Your task to perform on an android device: set the stopwatch Image 0: 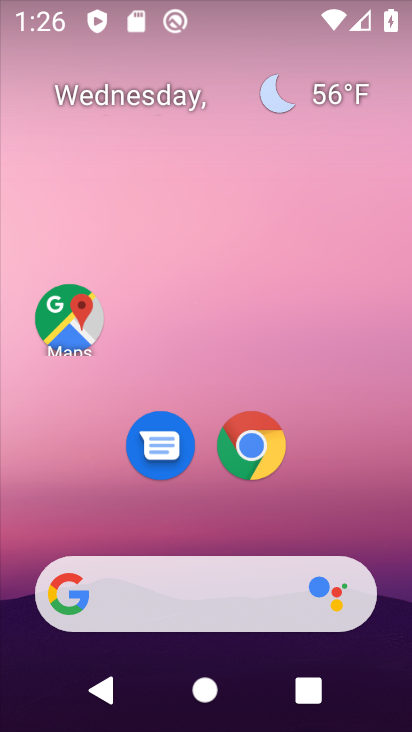
Step 0: drag from (194, 535) to (354, 48)
Your task to perform on an android device: set the stopwatch Image 1: 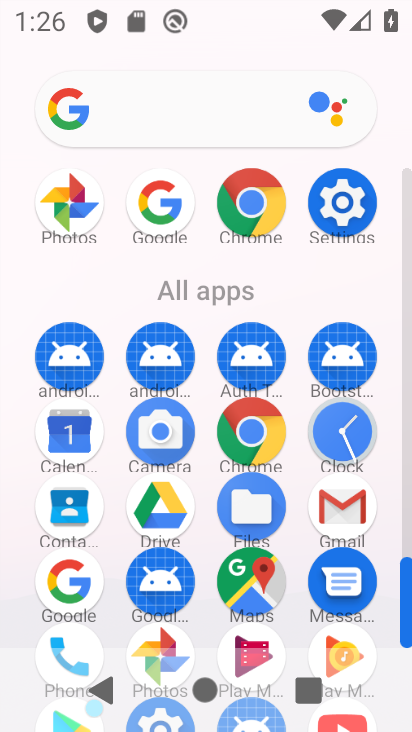
Step 1: click (338, 429)
Your task to perform on an android device: set the stopwatch Image 2: 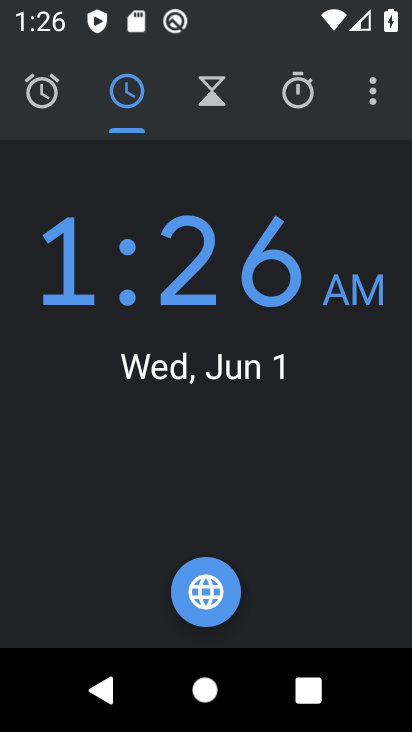
Step 2: click (320, 89)
Your task to perform on an android device: set the stopwatch Image 3: 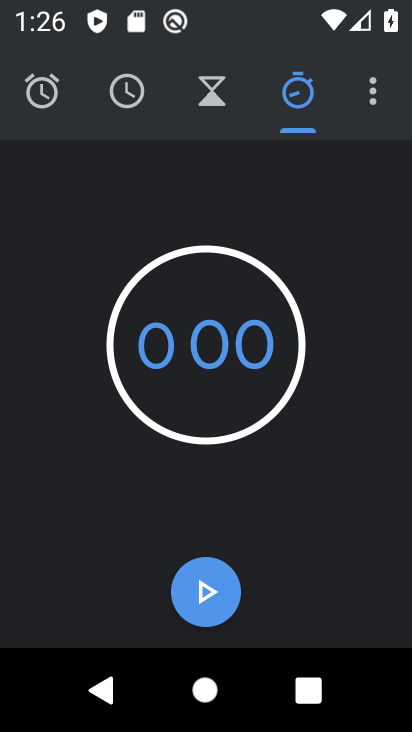
Step 3: task complete